Your task to perform on an android device: open sync settings in chrome Image 0: 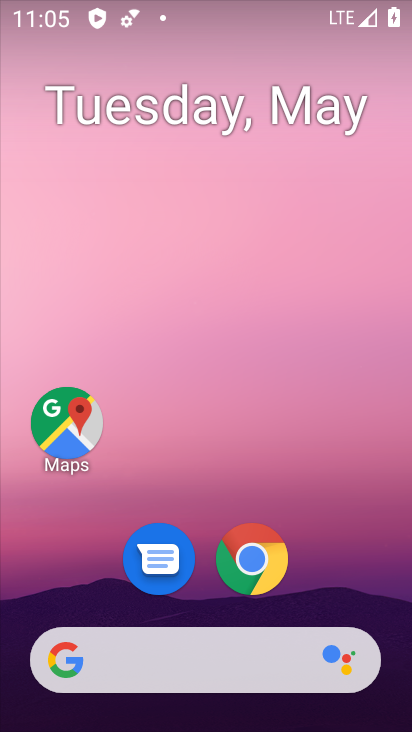
Step 0: drag from (390, 550) to (373, 105)
Your task to perform on an android device: open sync settings in chrome Image 1: 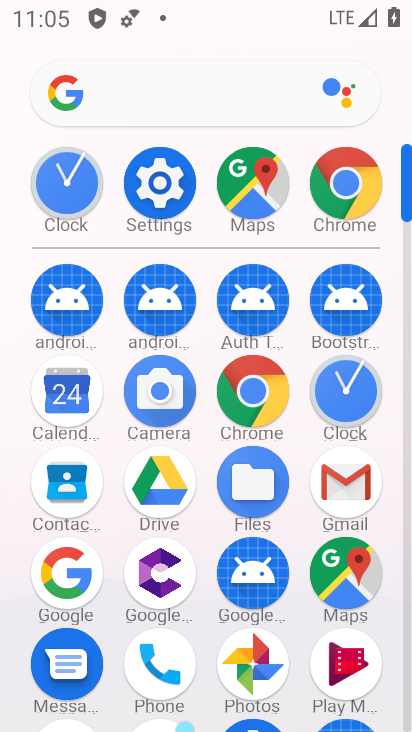
Step 1: click (244, 415)
Your task to perform on an android device: open sync settings in chrome Image 2: 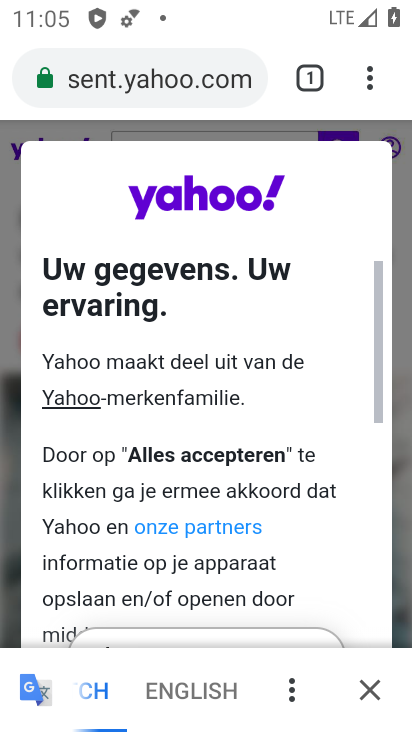
Step 2: drag from (382, 69) to (167, 611)
Your task to perform on an android device: open sync settings in chrome Image 3: 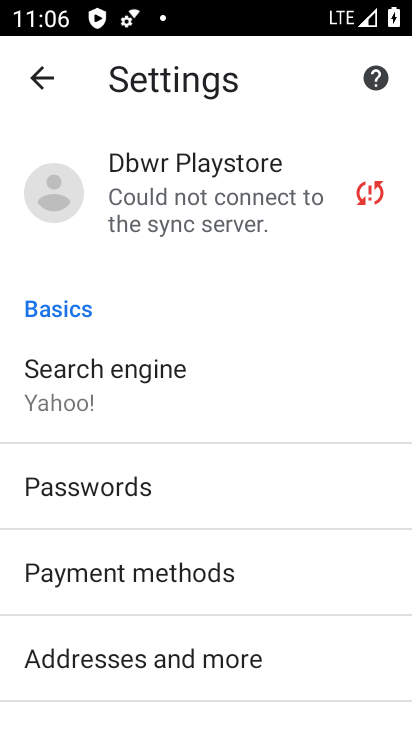
Step 3: drag from (265, 579) to (272, 214)
Your task to perform on an android device: open sync settings in chrome Image 4: 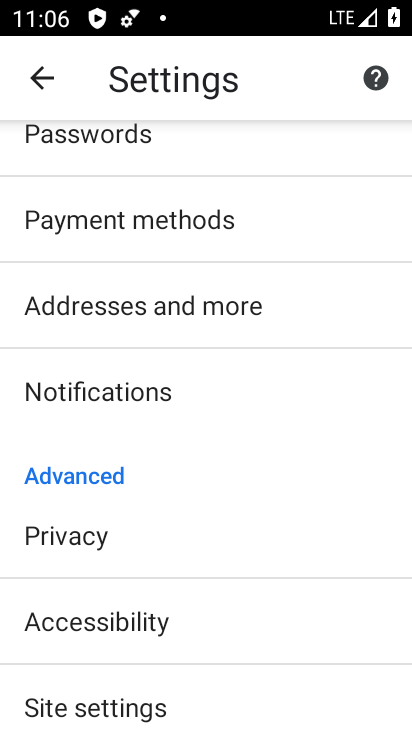
Step 4: drag from (289, 660) to (317, 320)
Your task to perform on an android device: open sync settings in chrome Image 5: 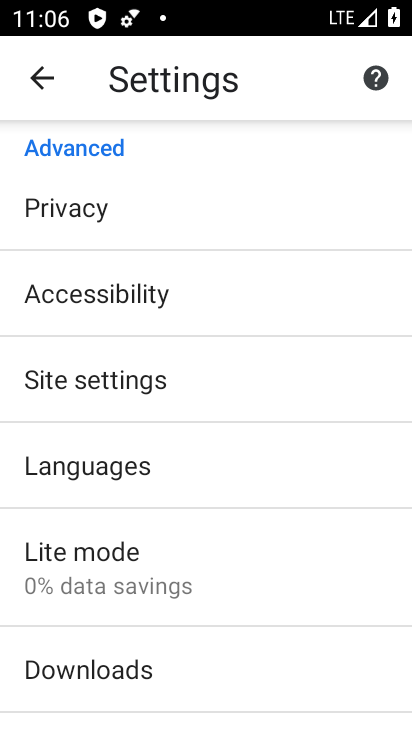
Step 5: click (203, 379)
Your task to perform on an android device: open sync settings in chrome Image 6: 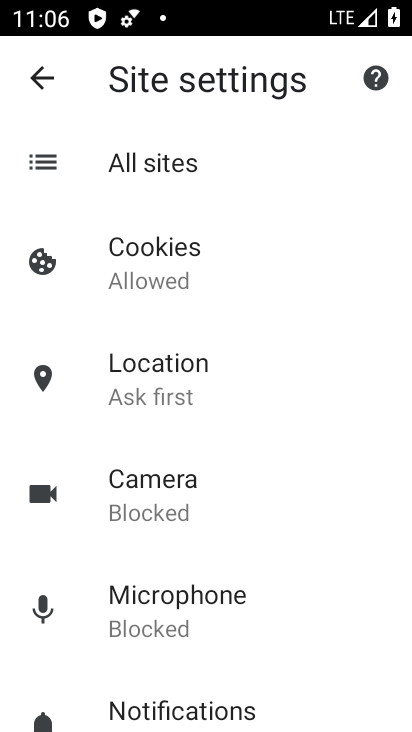
Step 6: drag from (243, 606) to (296, 266)
Your task to perform on an android device: open sync settings in chrome Image 7: 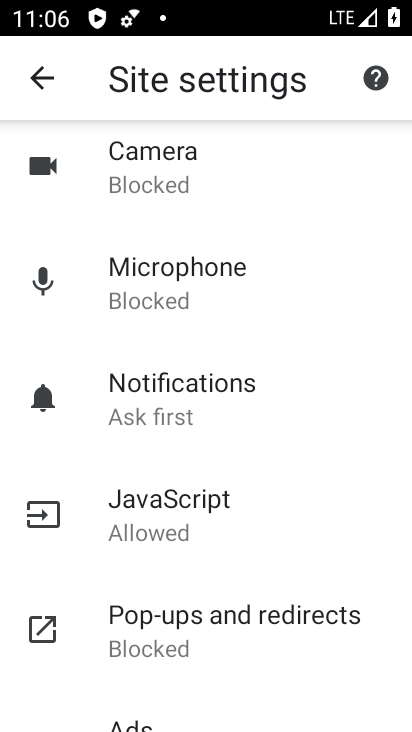
Step 7: drag from (299, 525) to (273, 204)
Your task to perform on an android device: open sync settings in chrome Image 8: 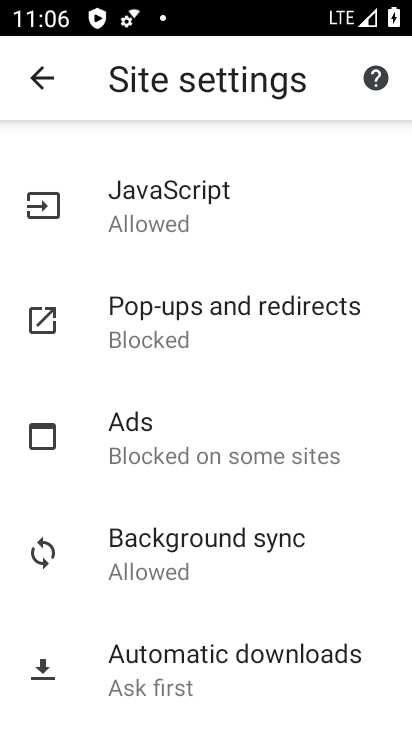
Step 8: drag from (253, 604) to (258, 217)
Your task to perform on an android device: open sync settings in chrome Image 9: 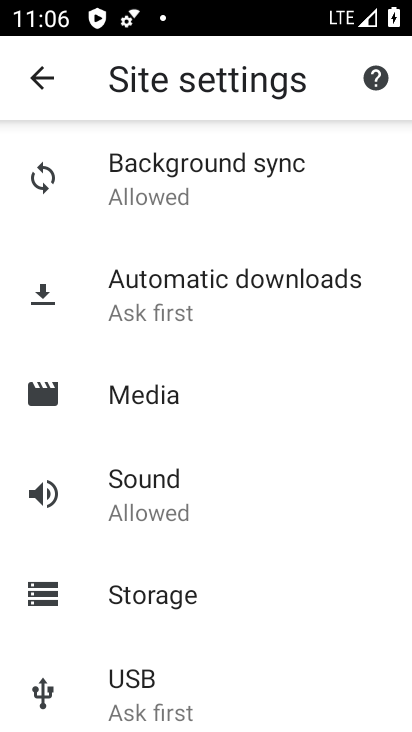
Step 9: click (212, 175)
Your task to perform on an android device: open sync settings in chrome Image 10: 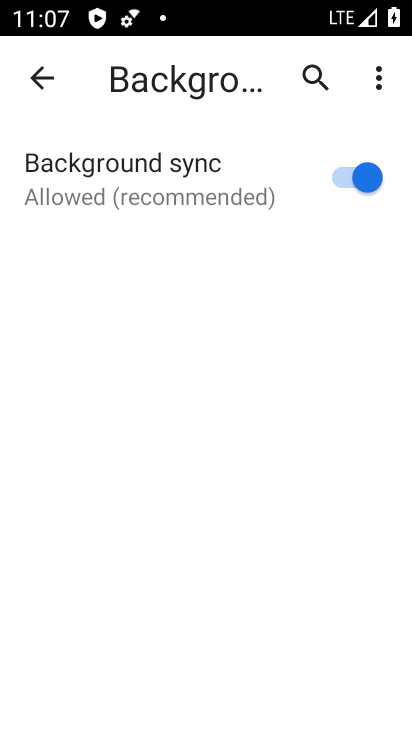
Step 10: task complete